Your task to perform on an android device: turn pop-ups off in chrome Image 0: 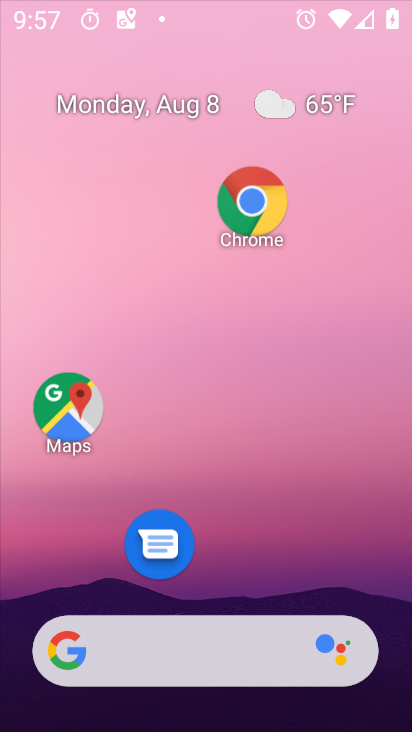
Step 0: press home button
Your task to perform on an android device: turn pop-ups off in chrome Image 1: 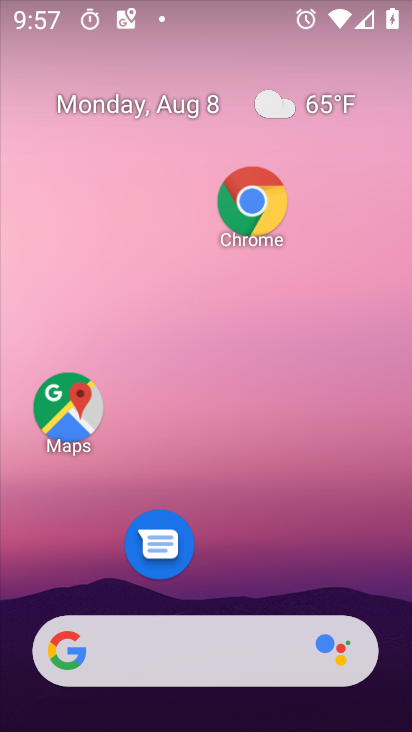
Step 1: drag from (296, 586) to (319, 83)
Your task to perform on an android device: turn pop-ups off in chrome Image 2: 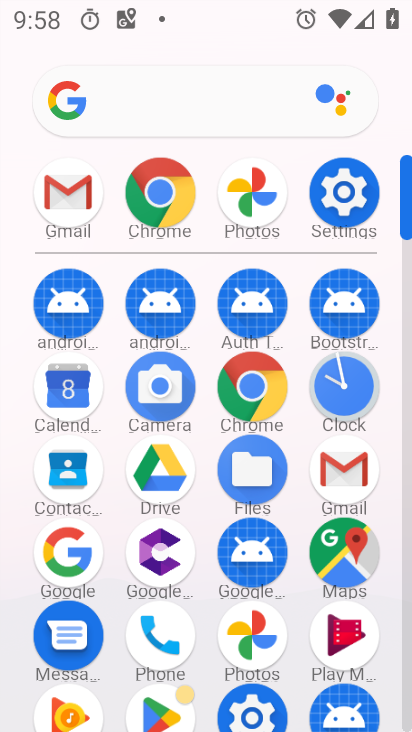
Step 2: click (248, 383)
Your task to perform on an android device: turn pop-ups off in chrome Image 3: 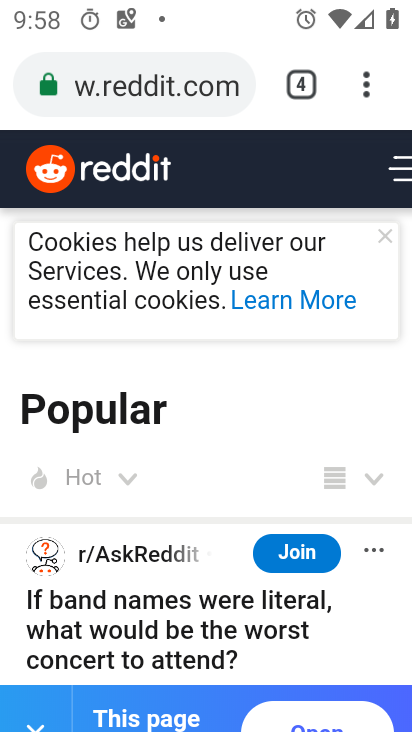
Step 3: click (364, 78)
Your task to perform on an android device: turn pop-ups off in chrome Image 4: 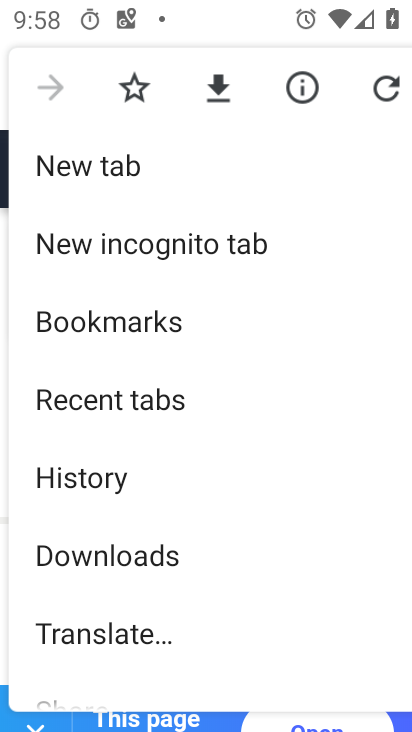
Step 4: drag from (197, 627) to (196, 108)
Your task to perform on an android device: turn pop-ups off in chrome Image 5: 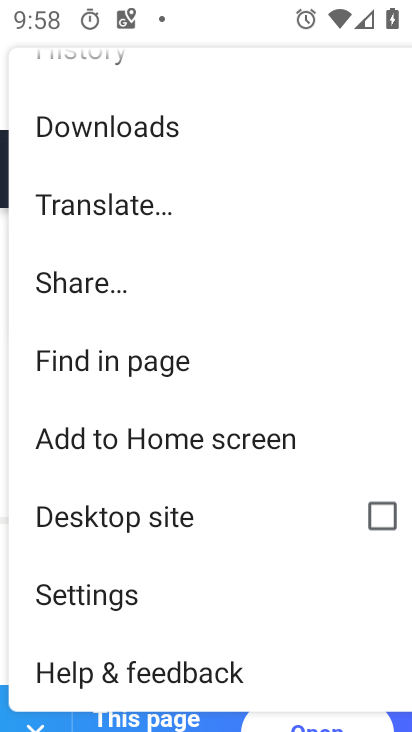
Step 5: click (161, 587)
Your task to perform on an android device: turn pop-ups off in chrome Image 6: 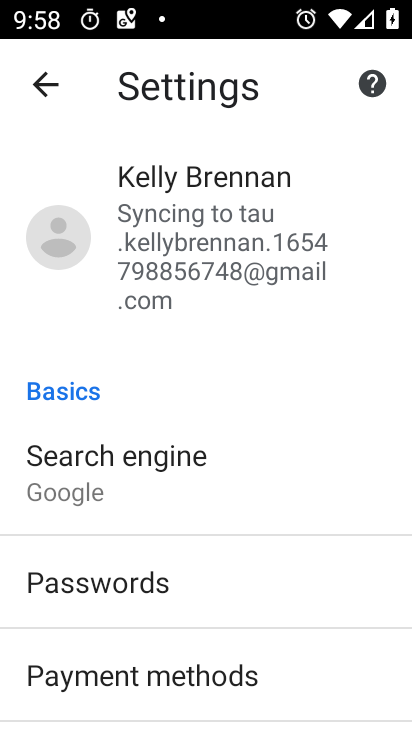
Step 6: drag from (284, 650) to (307, 106)
Your task to perform on an android device: turn pop-ups off in chrome Image 7: 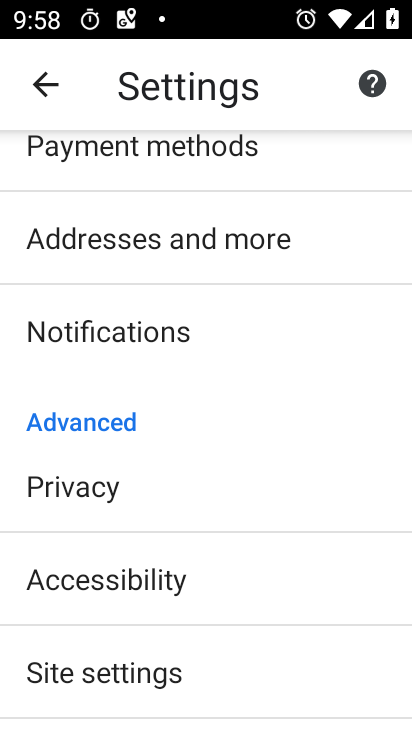
Step 7: click (208, 666)
Your task to perform on an android device: turn pop-ups off in chrome Image 8: 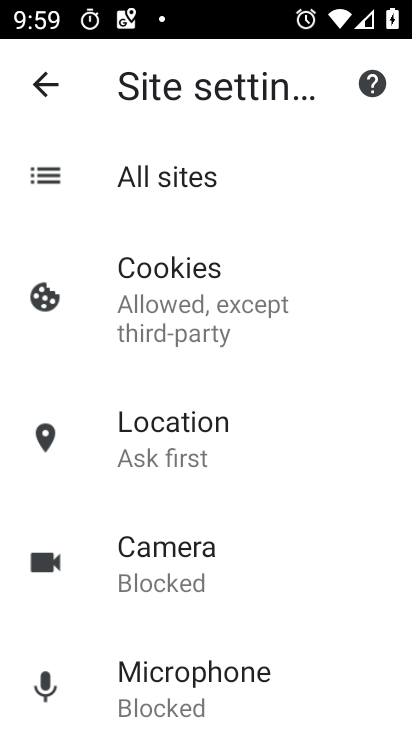
Step 8: drag from (174, 620) to (204, 98)
Your task to perform on an android device: turn pop-ups off in chrome Image 9: 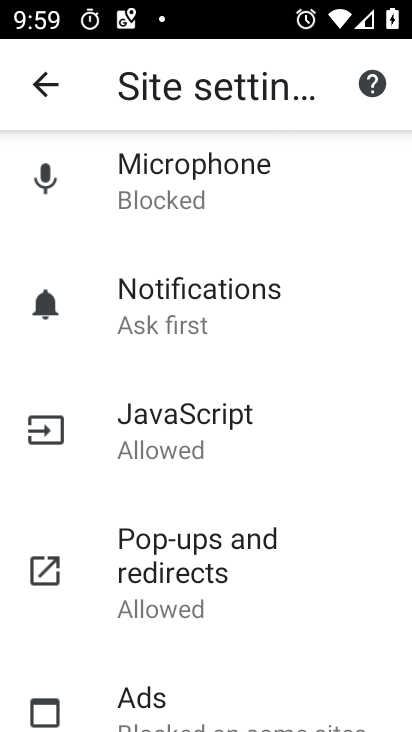
Step 9: click (90, 567)
Your task to perform on an android device: turn pop-ups off in chrome Image 10: 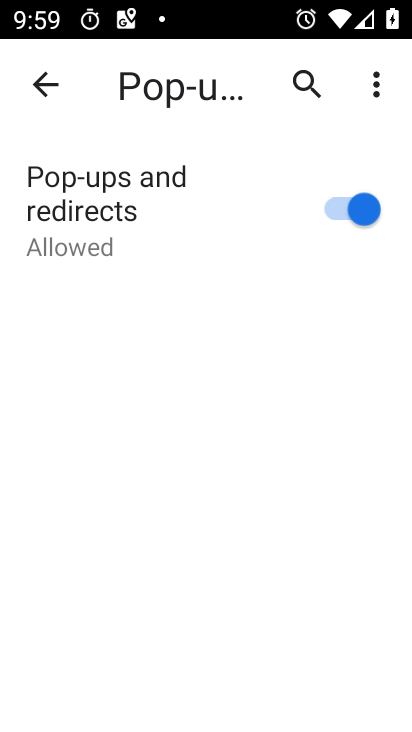
Step 10: click (339, 203)
Your task to perform on an android device: turn pop-ups off in chrome Image 11: 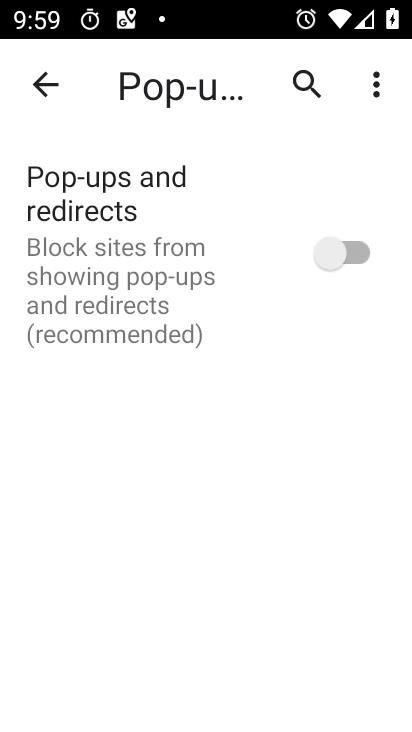
Step 11: task complete